Your task to perform on an android device: Open display settings Image 0: 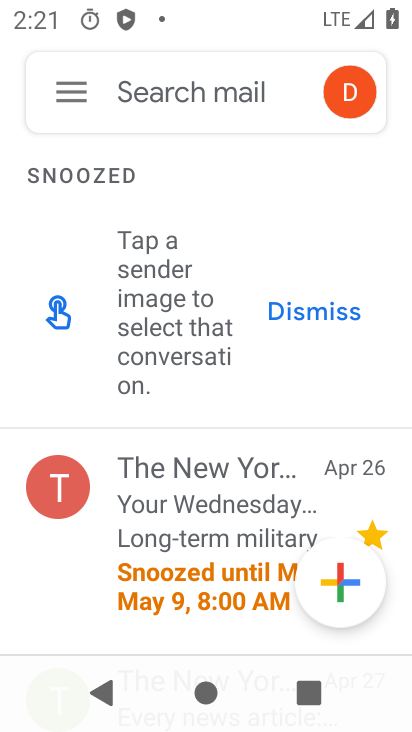
Step 0: press home button
Your task to perform on an android device: Open display settings Image 1: 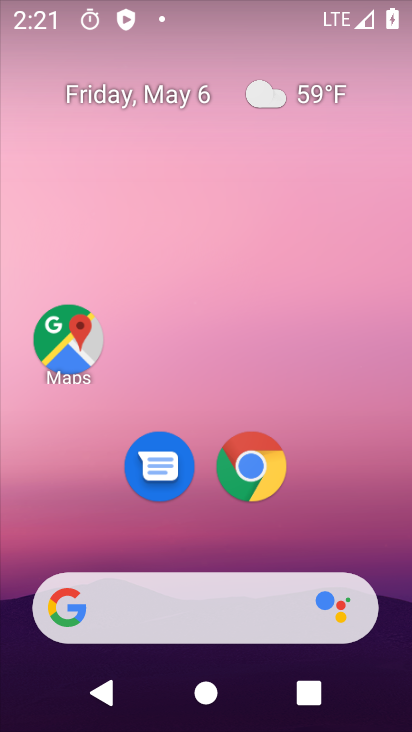
Step 1: drag from (311, 459) to (390, 105)
Your task to perform on an android device: Open display settings Image 2: 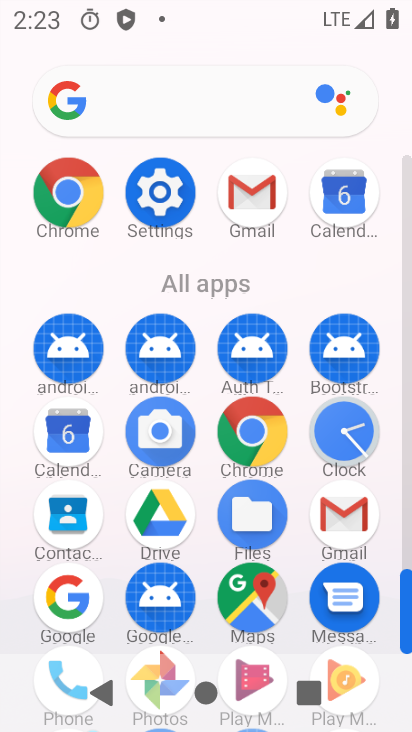
Step 2: click (168, 196)
Your task to perform on an android device: Open display settings Image 3: 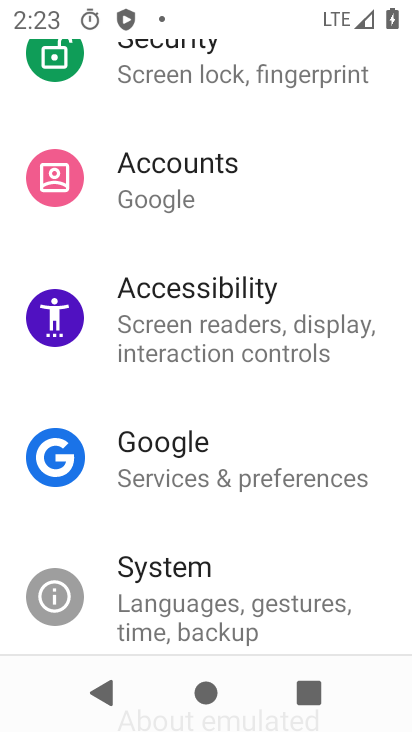
Step 3: drag from (218, 161) to (258, 610)
Your task to perform on an android device: Open display settings Image 4: 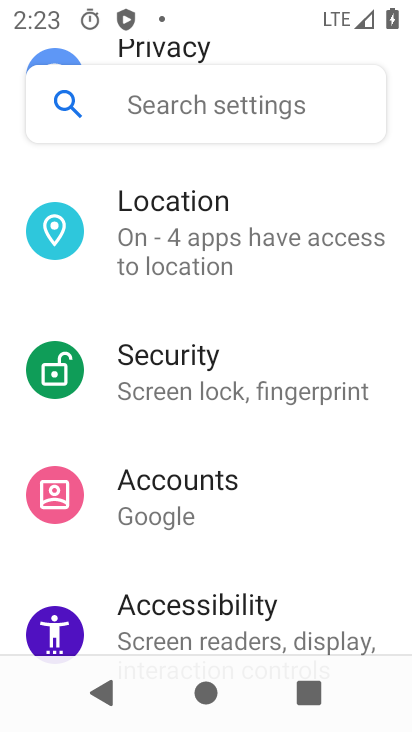
Step 4: drag from (298, 258) to (308, 644)
Your task to perform on an android device: Open display settings Image 5: 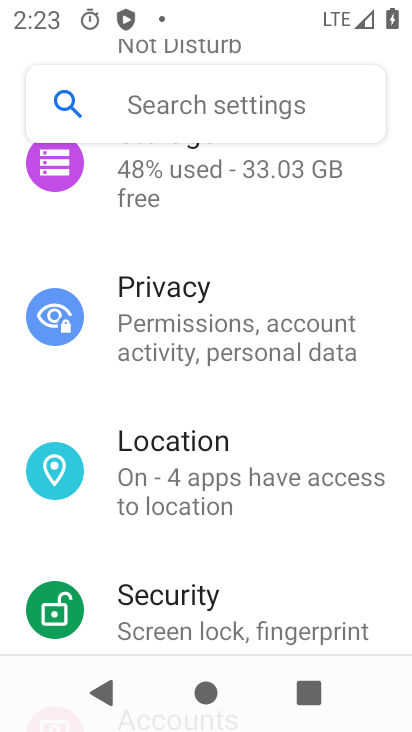
Step 5: drag from (304, 292) to (298, 642)
Your task to perform on an android device: Open display settings Image 6: 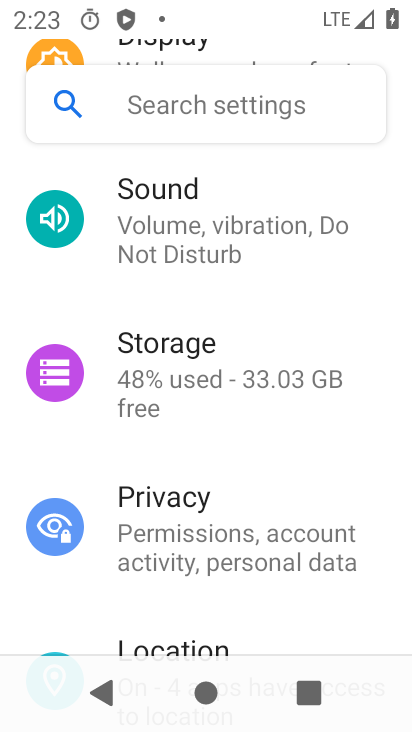
Step 6: drag from (244, 223) to (282, 654)
Your task to perform on an android device: Open display settings Image 7: 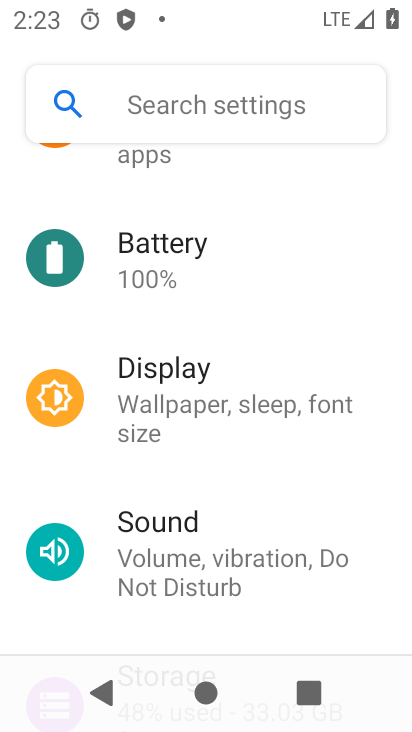
Step 7: click (216, 403)
Your task to perform on an android device: Open display settings Image 8: 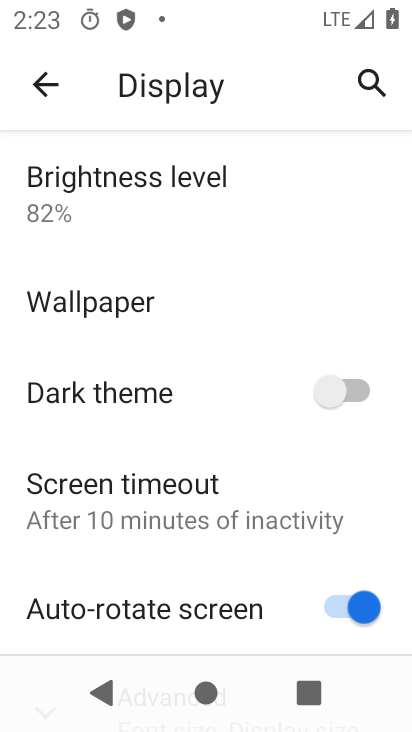
Step 8: task complete